Your task to perform on an android device: toggle pop-ups in chrome Image 0: 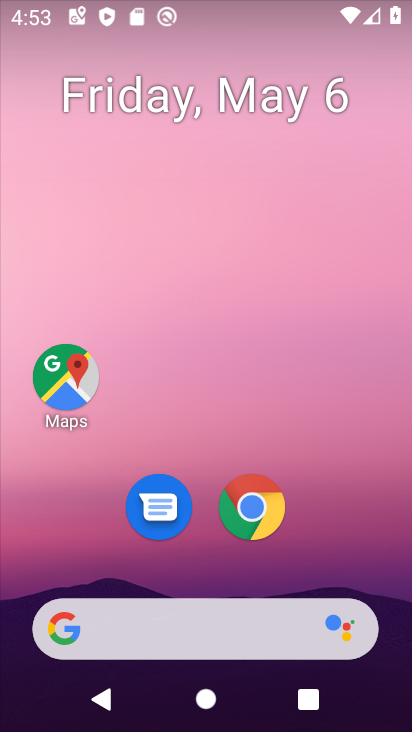
Step 0: click (259, 517)
Your task to perform on an android device: toggle pop-ups in chrome Image 1: 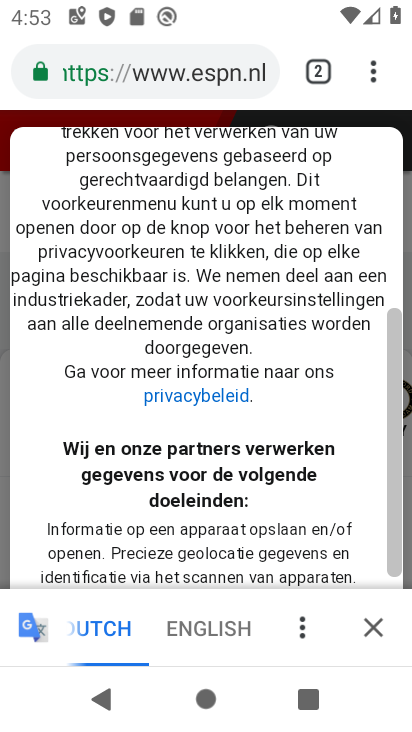
Step 1: click (376, 80)
Your task to perform on an android device: toggle pop-ups in chrome Image 2: 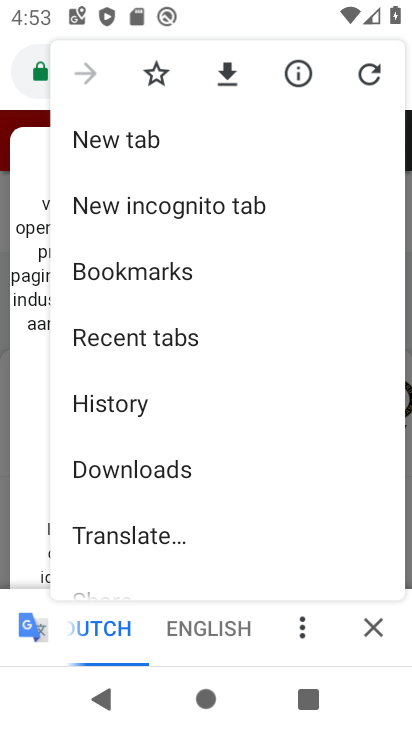
Step 2: drag from (234, 487) to (229, 252)
Your task to perform on an android device: toggle pop-ups in chrome Image 3: 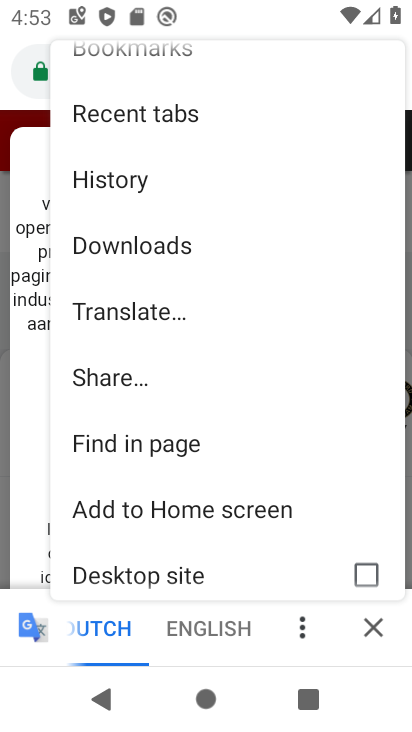
Step 3: drag from (225, 443) to (206, 210)
Your task to perform on an android device: toggle pop-ups in chrome Image 4: 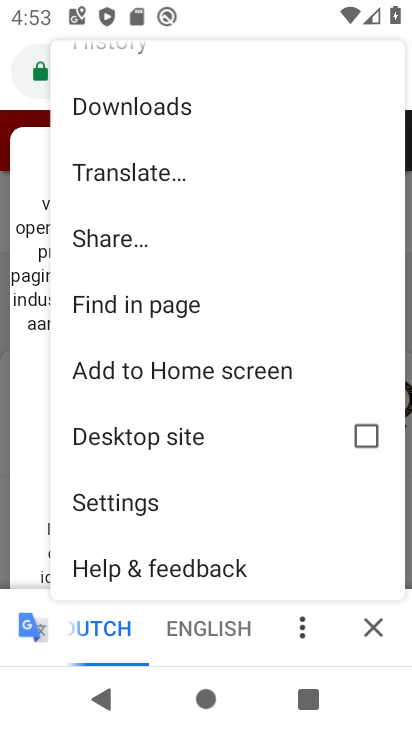
Step 4: click (114, 496)
Your task to perform on an android device: toggle pop-ups in chrome Image 5: 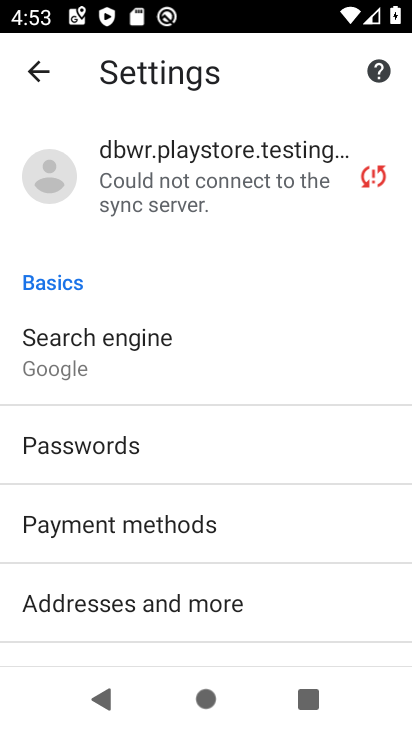
Step 5: drag from (236, 399) to (211, 212)
Your task to perform on an android device: toggle pop-ups in chrome Image 6: 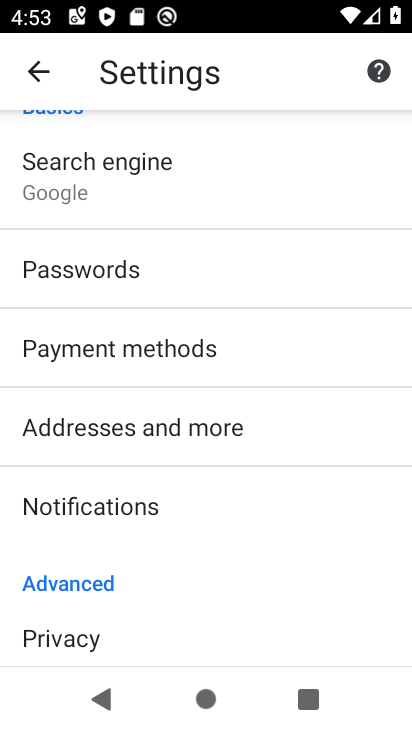
Step 6: drag from (248, 532) to (241, 196)
Your task to perform on an android device: toggle pop-ups in chrome Image 7: 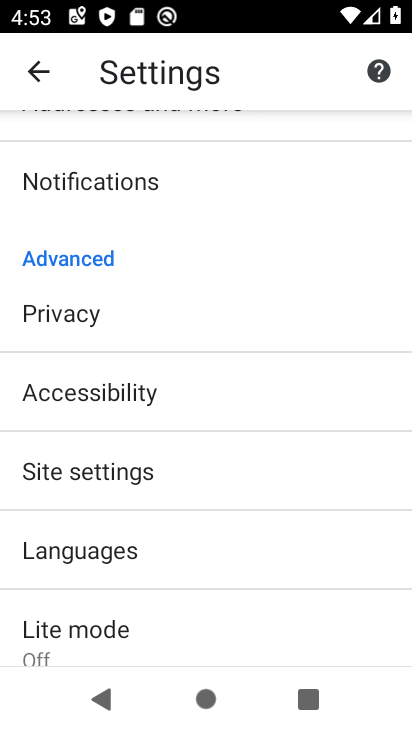
Step 7: click (90, 473)
Your task to perform on an android device: toggle pop-ups in chrome Image 8: 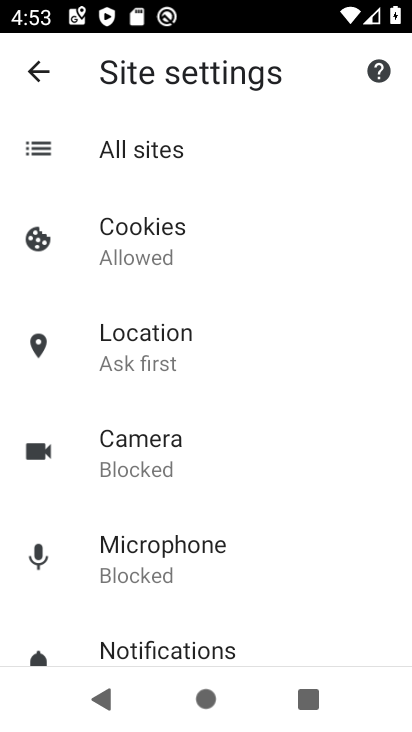
Step 8: drag from (260, 532) to (232, 249)
Your task to perform on an android device: toggle pop-ups in chrome Image 9: 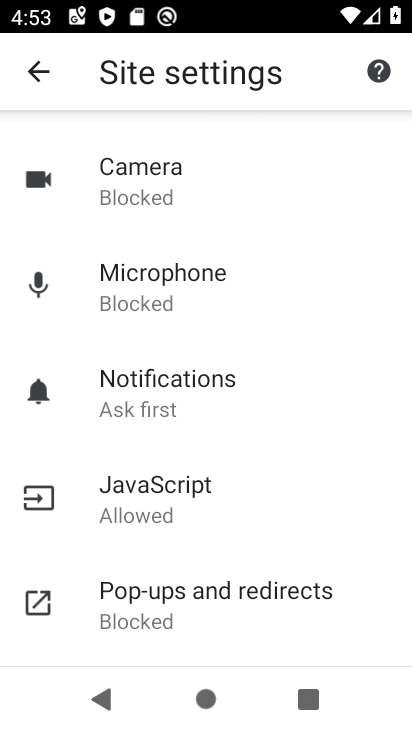
Step 9: click (201, 591)
Your task to perform on an android device: toggle pop-ups in chrome Image 10: 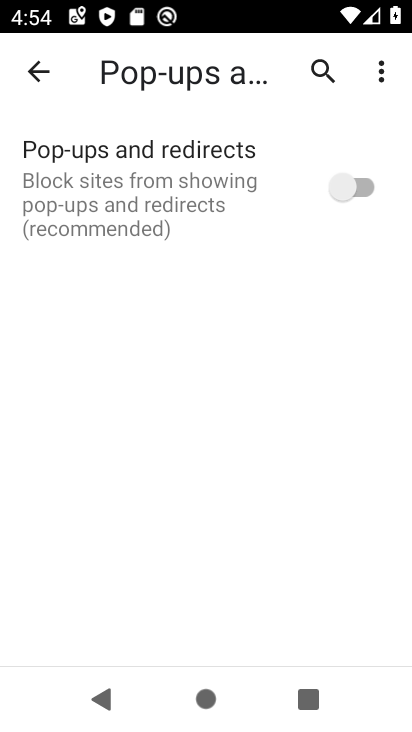
Step 10: click (341, 188)
Your task to perform on an android device: toggle pop-ups in chrome Image 11: 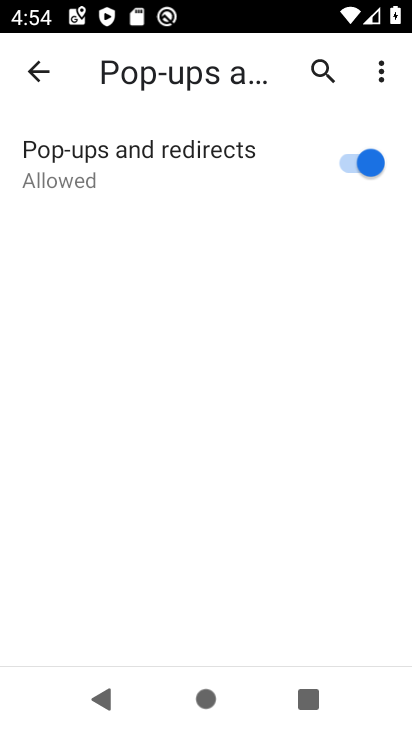
Step 11: task complete